Your task to perform on an android device: Go to ESPN.com Image 0: 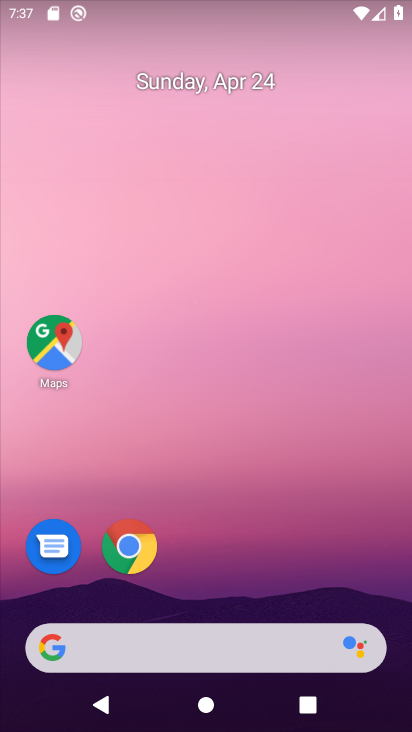
Step 0: drag from (201, 539) to (283, 171)
Your task to perform on an android device: Go to ESPN.com Image 1: 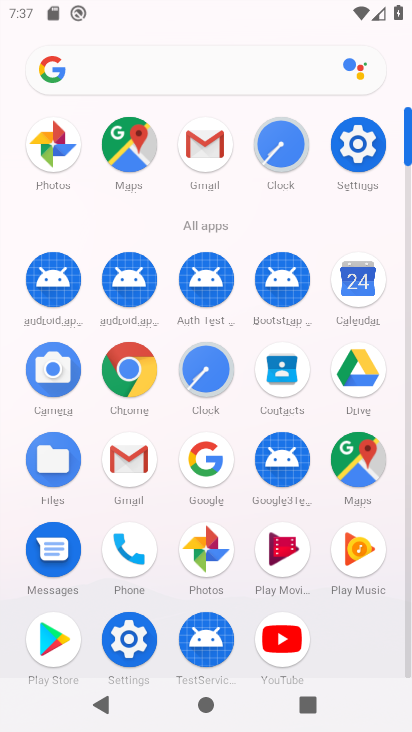
Step 1: drag from (188, 538) to (254, 179)
Your task to perform on an android device: Go to ESPN.com Image 2: 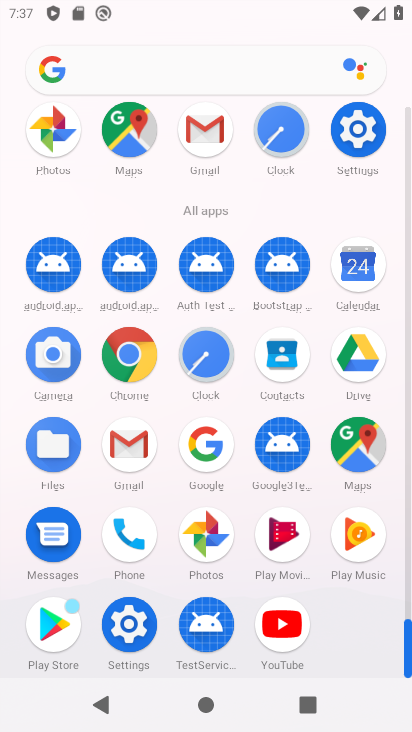
Step 2: click (129, 358)
Your task to perform on an android device: Go to ESPN.com Image 3: 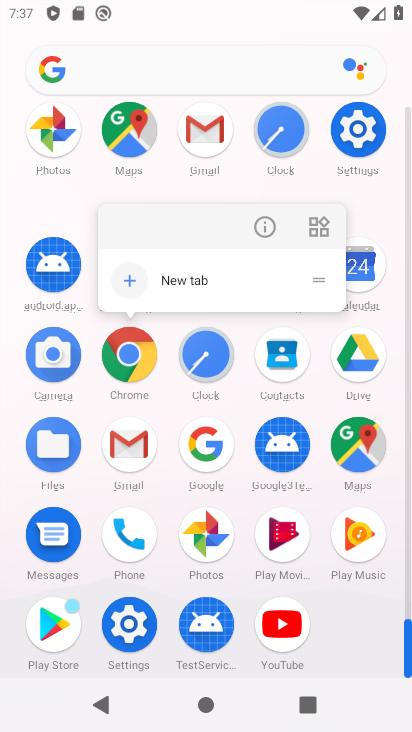
Step 3: click (263, 218)
Your task to perform on an android device: Go to ESPN.com Image 4: 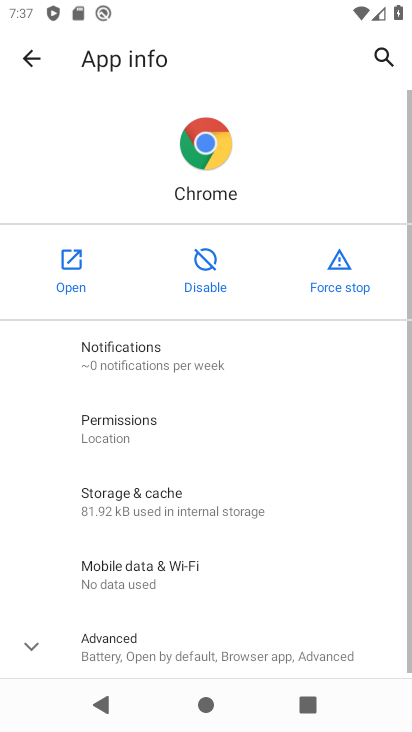
Step 4: click (58, 263)
Your task to perform on an android device: Go to ESPN.com Image 5: 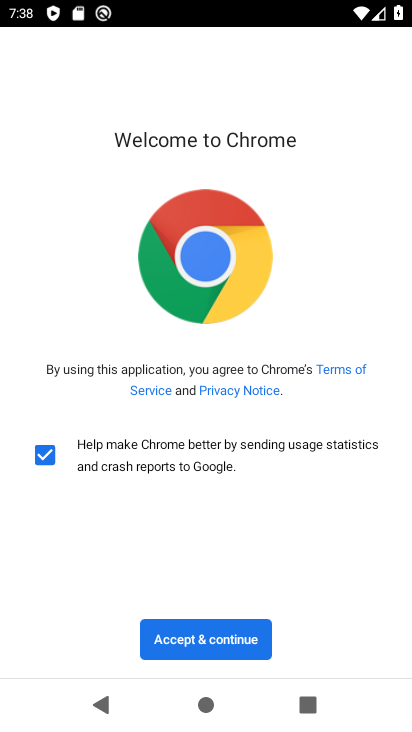
Step 5: click (190, 641)
Your task to perform on an android device: Go to ESPN.com Image 6: 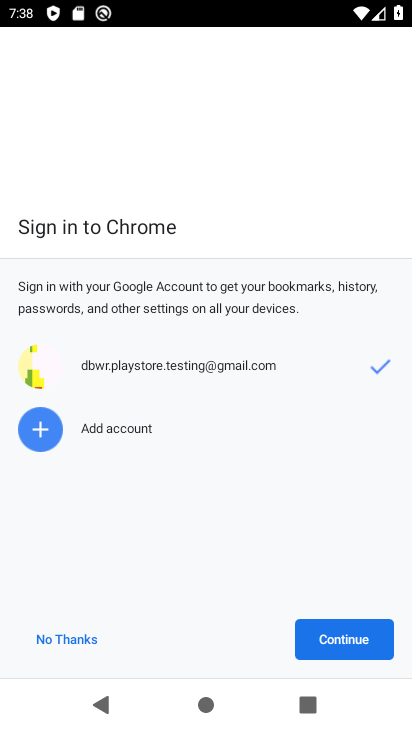
Step 6: click (343, 641)
Your task to perform on an android device: Go to ESPN.com Image 7: 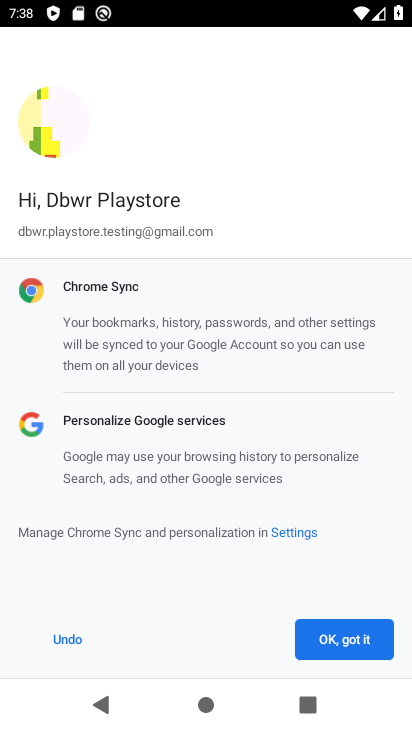
Step 7: click (368, 636)
Your task to perform on an android device: Go to ESPN.com Image 8: 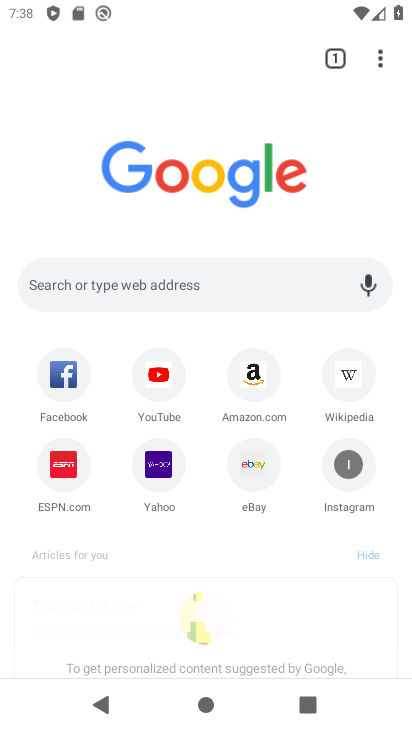
Step 8: click (131, 57)
Your task to perform on an android device: Go to ESPN.com Image 9: 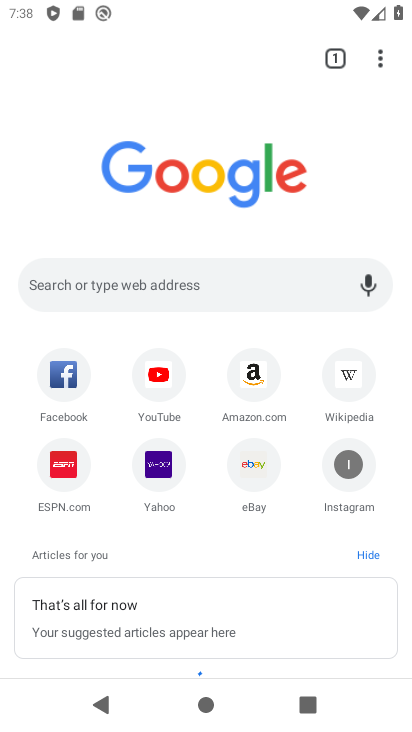
Step 9: click (173, 265)
Your task to perform on an android device: Go to ESPN.com Image 10: 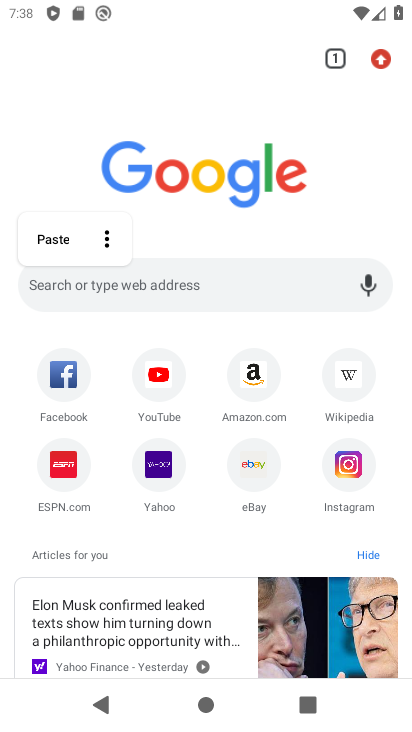
Step 10: type "espn"
Your task to perform on an android device: Go to ESPN.com Image 11: 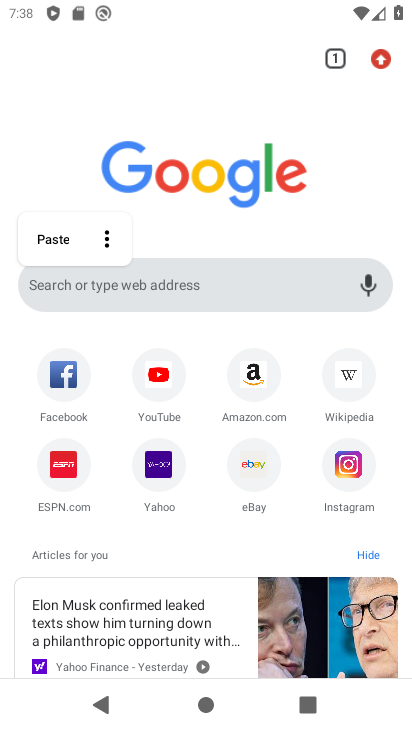
Step 11: click (47, 465)
Your task to perform on an android device: Go to ESPN.com Image 12: 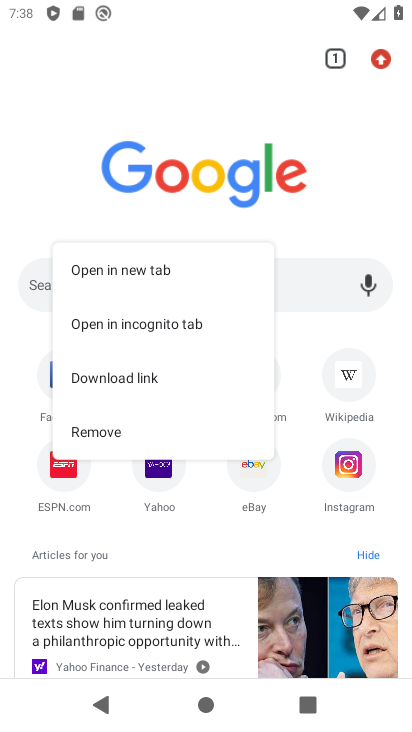
Step 12: click (143, 271)
Your task to perform on an android device: Go to ESPN.com Image 13: 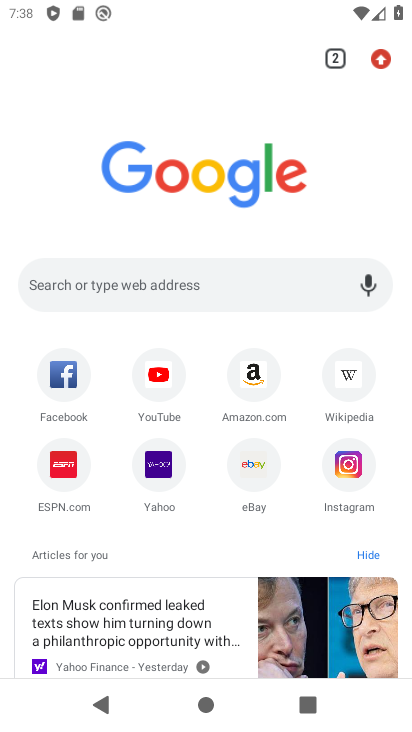
Step 13: click (42, 491)
Your task to perform on an android device: Go to ESPN.com Image 14: 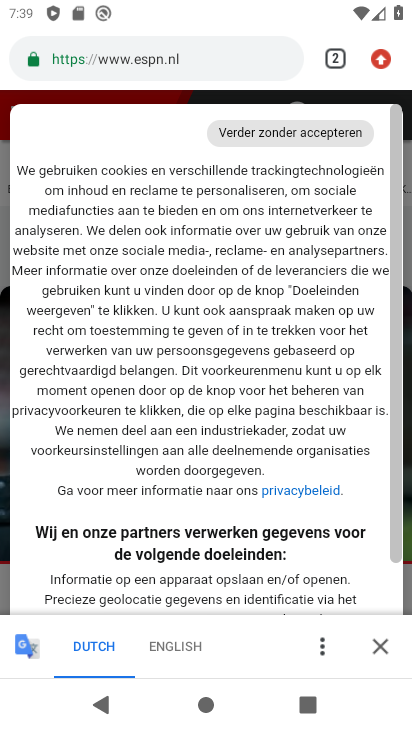
Step 14: drag from (150, 537) to (285, 14)
Your task to perform on an android device: Go to ESPN.com Image 15: 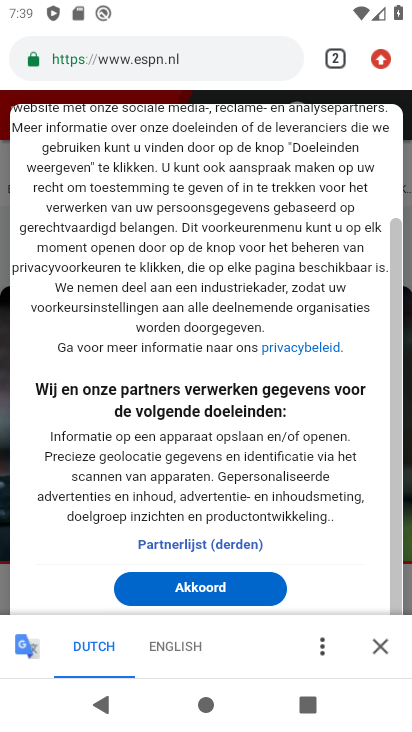
Step 15: click (373, 641)
Your task to perform on an android device: Go to ESPN.com Image 16: 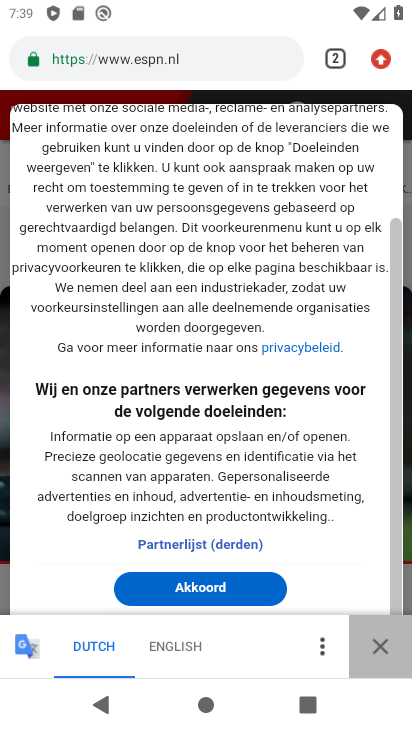
Step 16: task complete